Your task to perform on an android device: Go to Android settings Image 0: 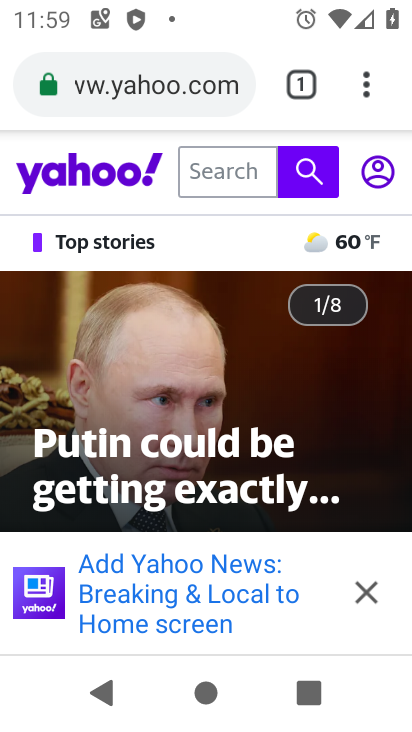
Step 0: press home button
Your task to perform on an android device: Go to Android settings Image 1: 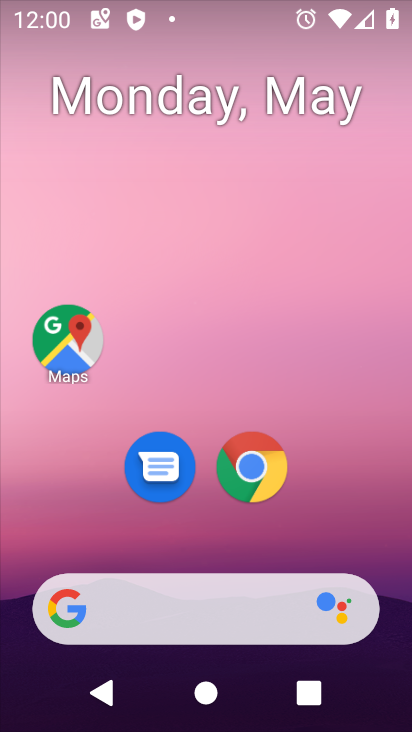
Step 1: drag from (356, 522) to (204, 7)
Your task to perform on an android device: Go to Android settings Image 2: 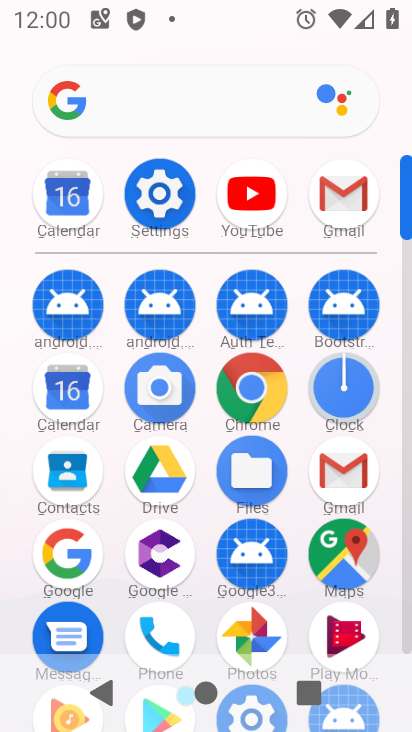
Step 2: click (150, 191)
Your task to perform on an android device: Go to Android settings Image 3: 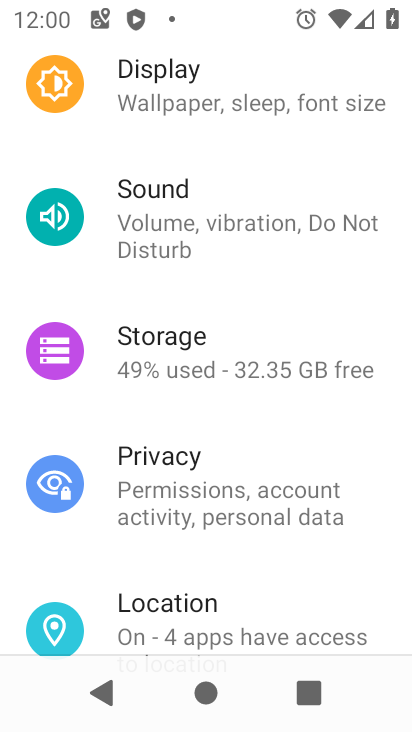
Step 3: task complete